Your task to perform on an android device: delete browsing data in the chrome app Image 0: 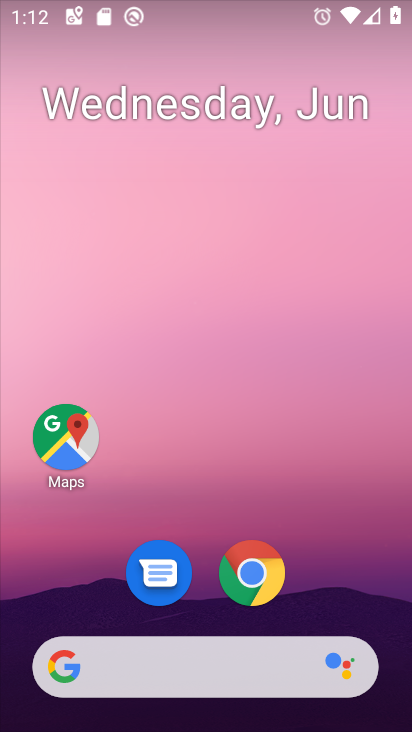
Step 0: click (252, 566)
Your task to perform on an android device: delete browsing data in the chrome app Image 1: 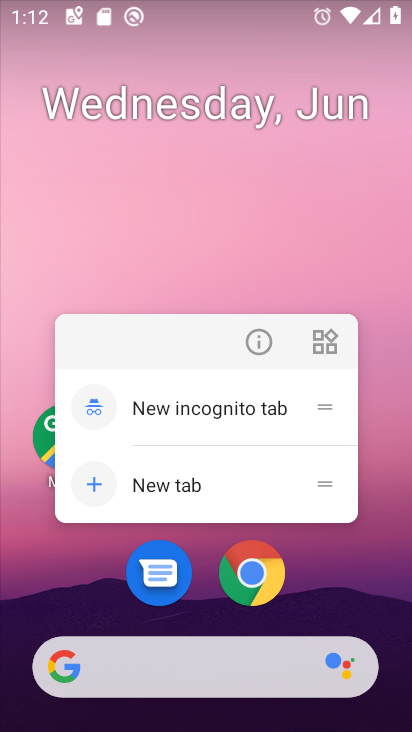
Step 1: click (259, 555)
Your task to perform on an android device: delete browsing data in the chrome app Image 2: 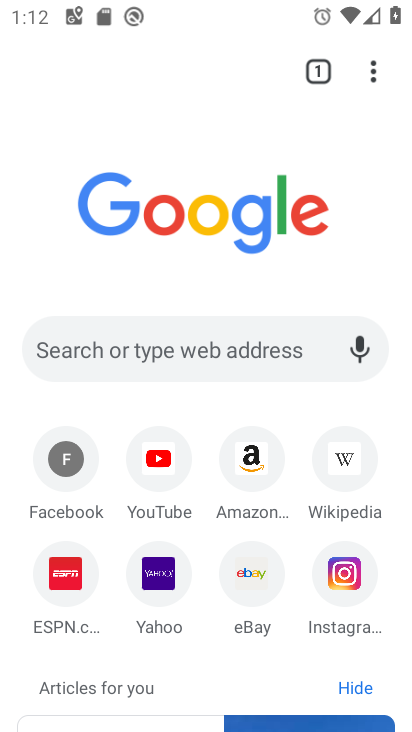
Step 2: click (371, 67)
Your task to perform on an android device: delete browsing data in the chrome app Image 3: 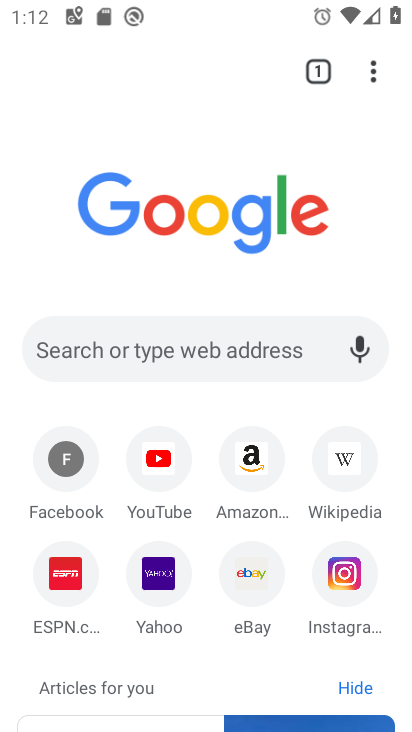
Step 3: click (370, 73)
Your task to perform on an android device: delete browsing data in the chrome app Image 4: 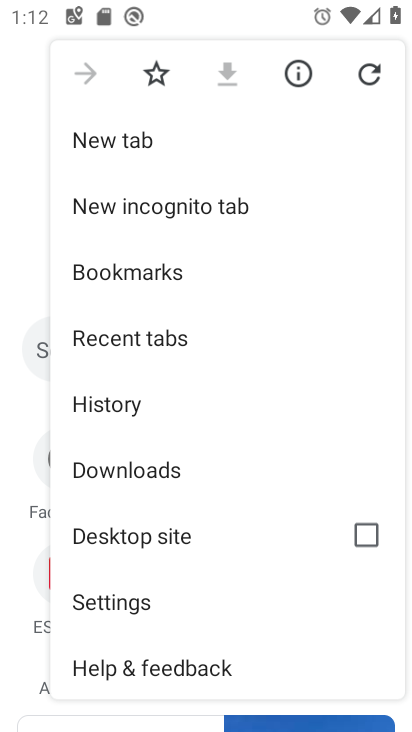
Step 4: click (126, 416)
Your task to perform on an android device: delete browsing data in the chrome app Image 5: 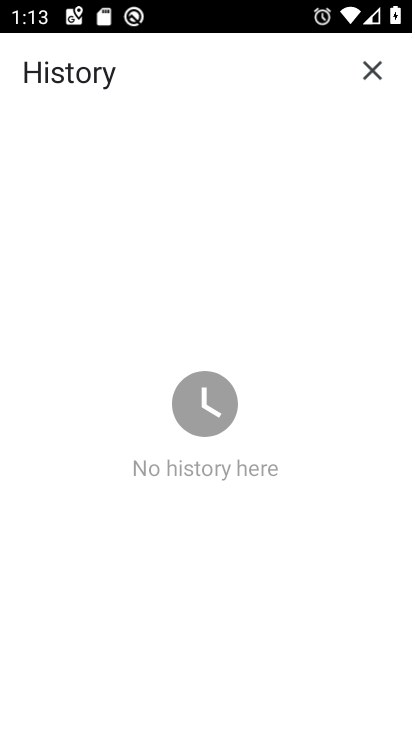
Step 5: task complete